Your task to perform on an android device: Open accessibility settings Image 0: 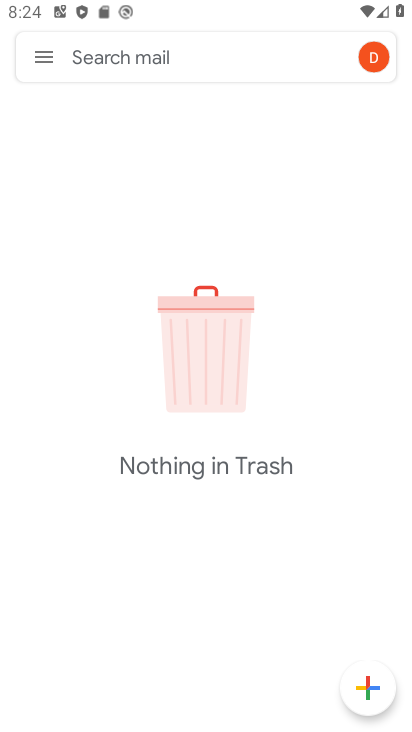
Step 0: press home button
Your task to perform on an android device: Open accessibility settings Image 1: 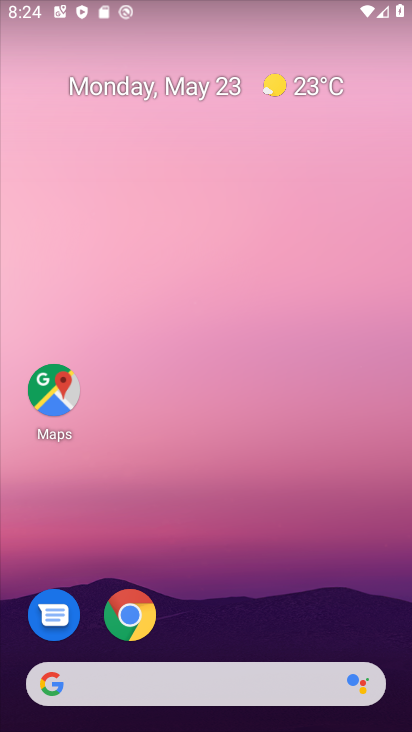
Step 1: drag from (246, 591) to (223, 105)
Your task to perform on an android device: Open accessibility settings Image 2: 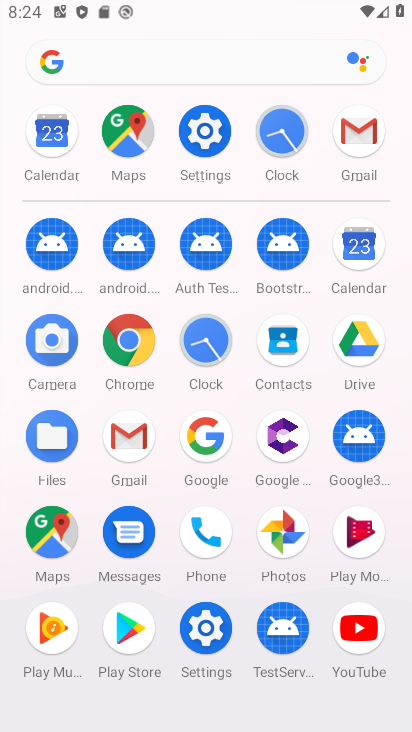
Step 2: click (207, 629)
Your task to perform on an android device: Open accessibility settings Image 3: 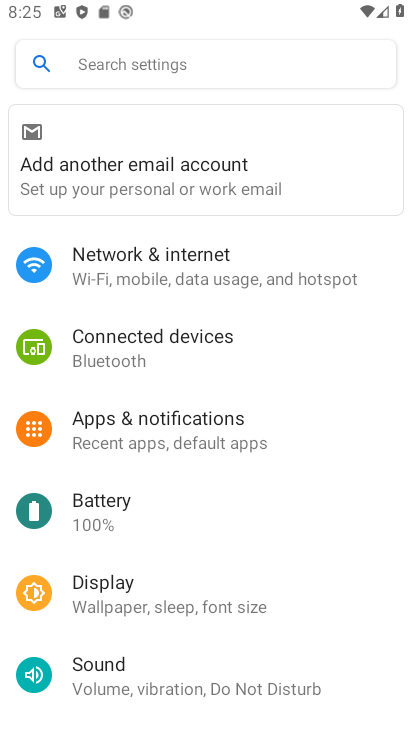
Step 3: drag from (180, 654) to (229, 561)
Your task to perform on an android device: Open accessibility settings Image 4: 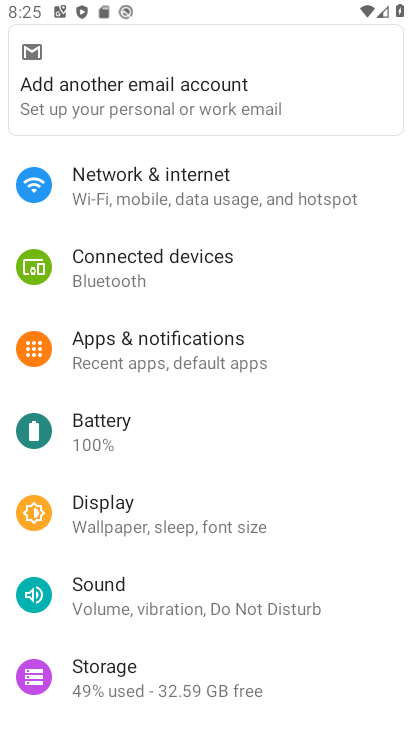
Step 4: drag from (174, 559) to (214, 443)
Your task to perform on an android device: Open accessibility settings Image 5: 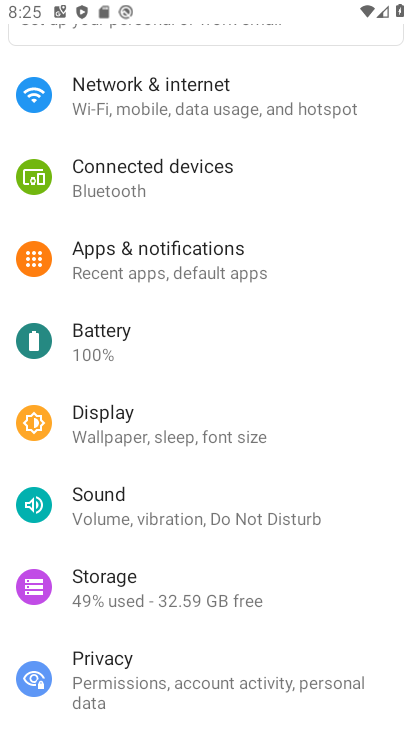
Step 5: drag from (166, 549) to (211, 462)
Your task to perform on an android device: Open accessibility settings Image 6: 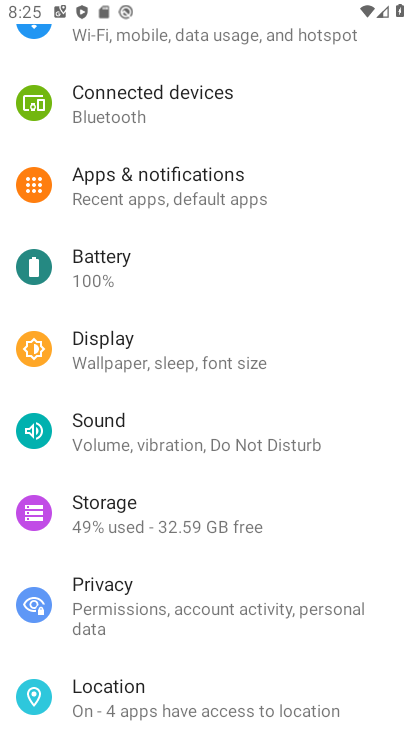
Step 6: drag from (152, 570) to (213, 483)
Your task to perform on an android device: Open accessibility settings Image 7: 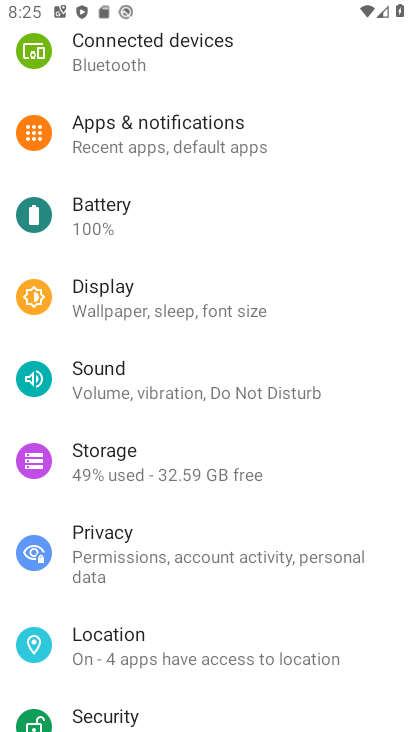
Step 7: drag from (150, 602) to (194, 513)
Your task to perform on an android device: Open accessibility settings Image 8: 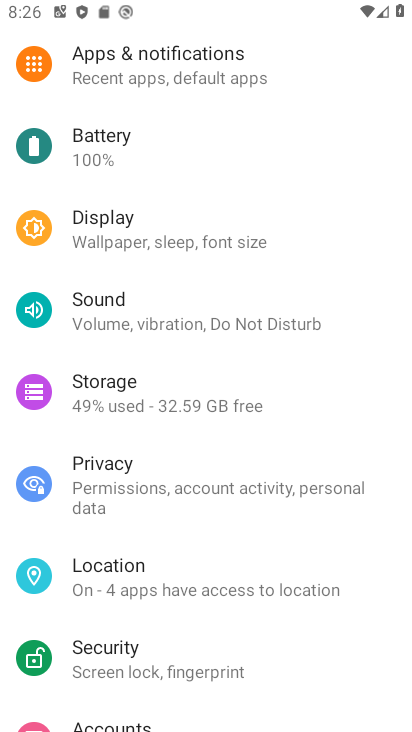
Step 8: drag from (175, 525) to (256, 421)
Your task to perform on an android device: Open accessibility settings Image 9: 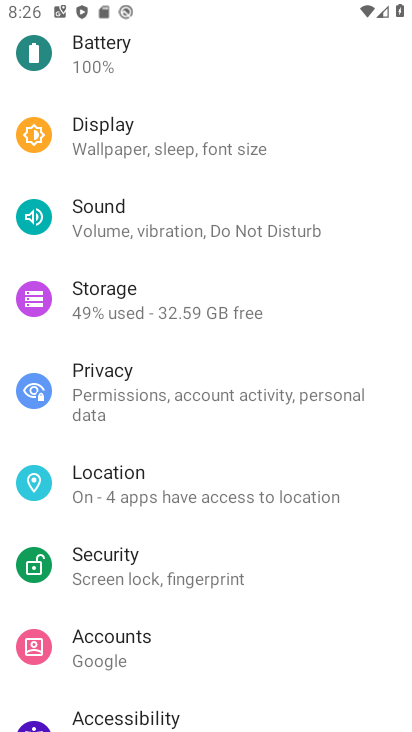
Step 9: drag from (114, 605) to (176, 515)
Your task to perform on an android device: Open accessibility settings Image 10: 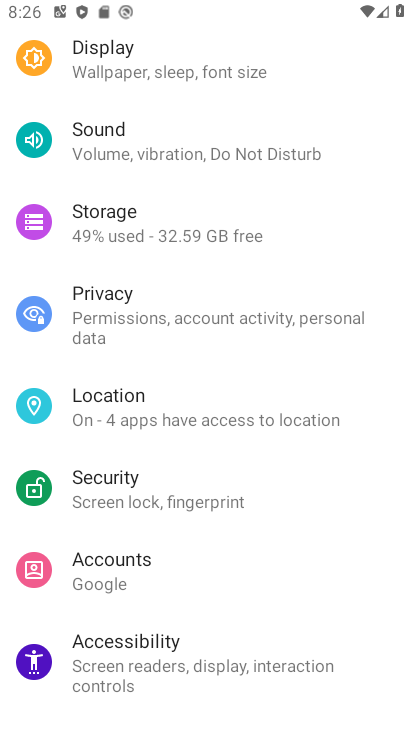
Step 10: drag from (106, 612) to (155, 526)
Your task to perform on an android device: Open accessibility settings Image 11: 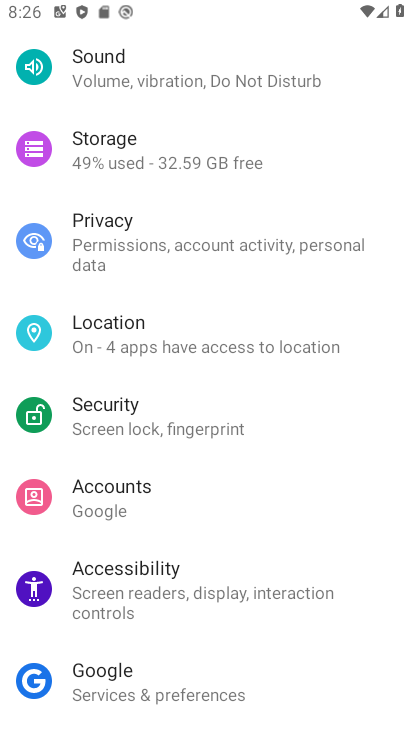
Step 11: click (144, 563)
Your task to perform on an android device: Open accessibility settings Image 12: 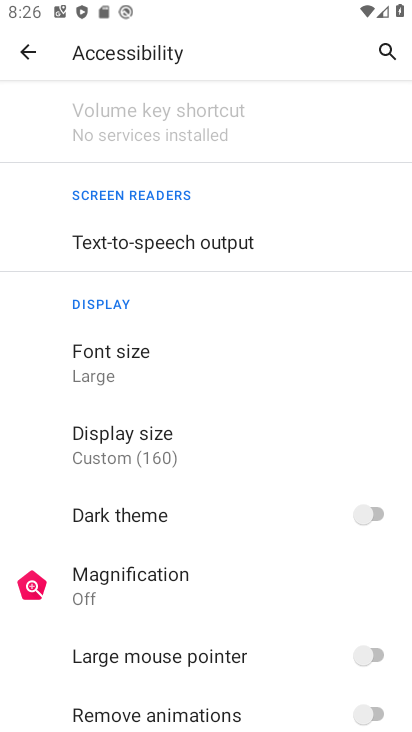
Step 12: task complete